Your task to perform on an android device: turn on location history Image 0: 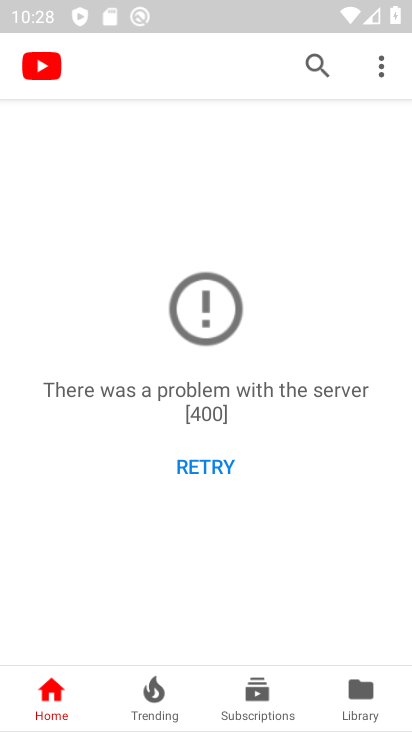
Step 0: press home button
Your task to perform on an android device: turn on location history Image 1: 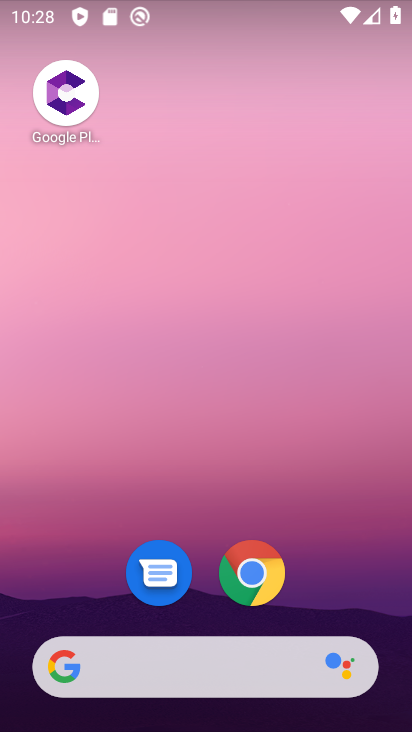
Step 1: drag from (59, 614) to (163, 210)
Your task to perform on an android device: turn on location history Image 2: 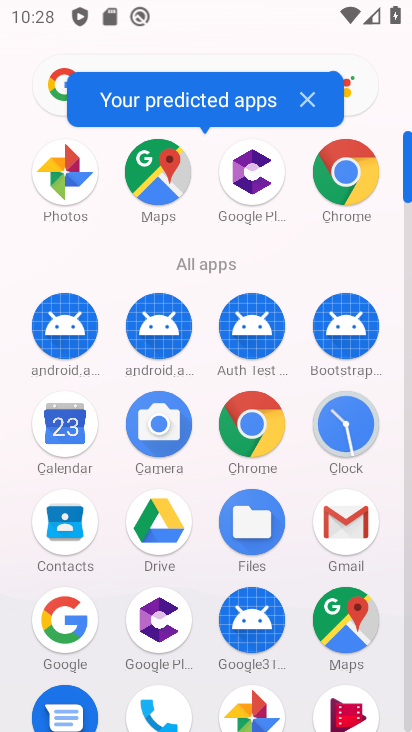
Step 2: drag from (160, 623) to (234, 363)
Your task to perform on an android device: turn on location history Image 3: 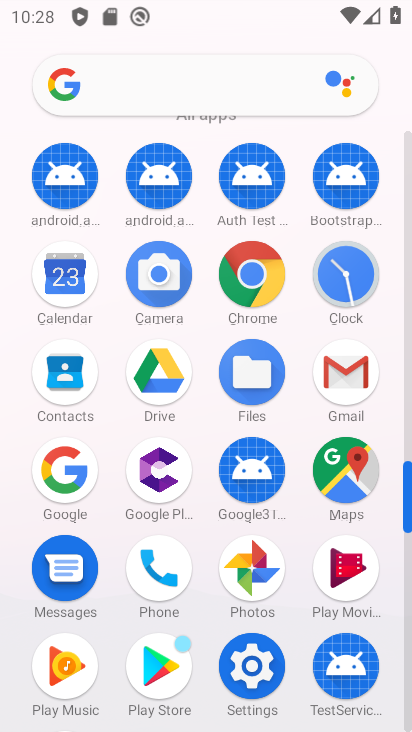
Step 3: click (251, 666)
Your task to perform on an android device: turn on location history Image 4: 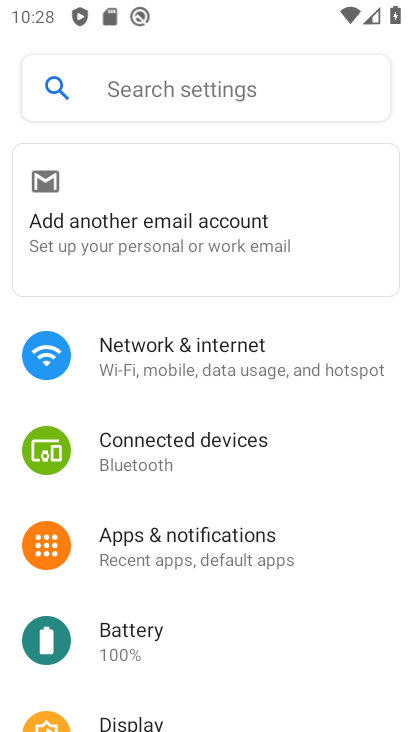
Step 4: drag from (155, 667) to (242, 348)
Your task to perform on an android device: turn on location history Image 5: 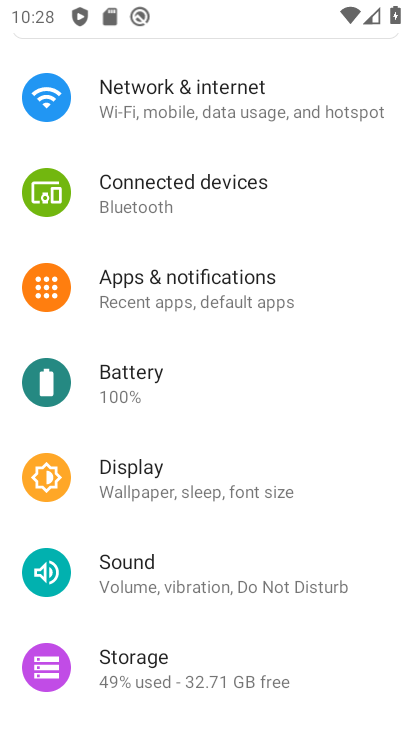
Step 5: drag from (198, 671) to (302, 391)
Your task to perform on an android device: turn on location history Image 6: 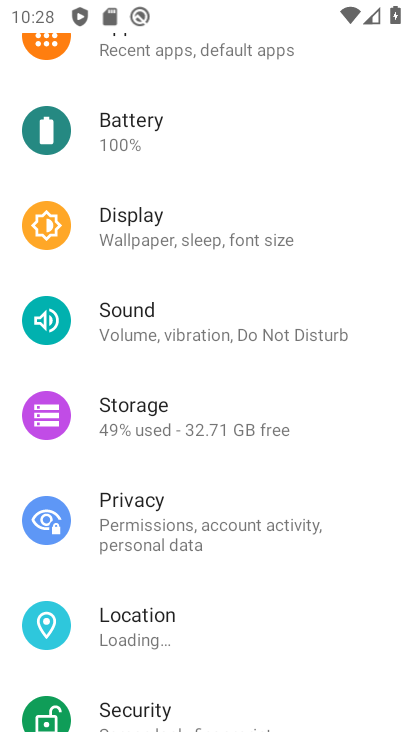
Step 6: click (183, 636)
Your task to perform on an android device: turn on location history Image 7: 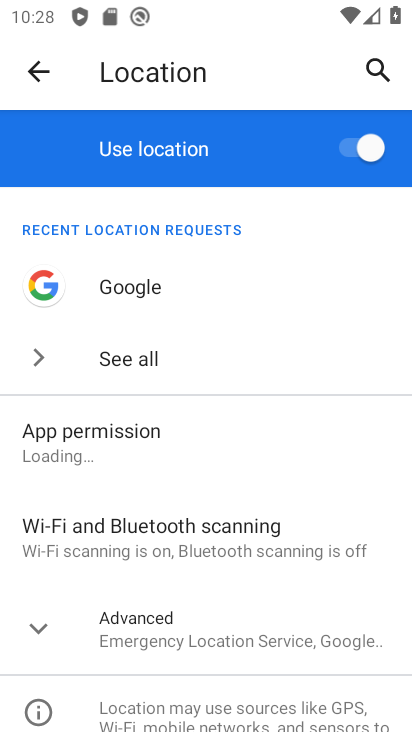
Step 7: click (187, 643)
Your task to perform on an android device: turn on location history Image 8: 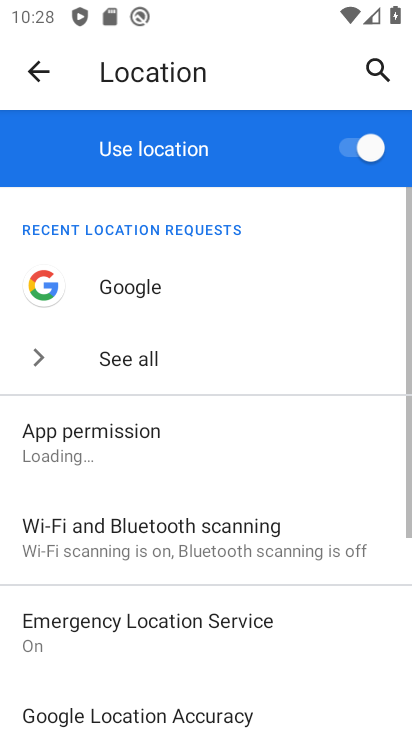
Step 8: drag from (180, 678) to (305, 336)
Your task to perform on an android device: turn on location history Image 9: 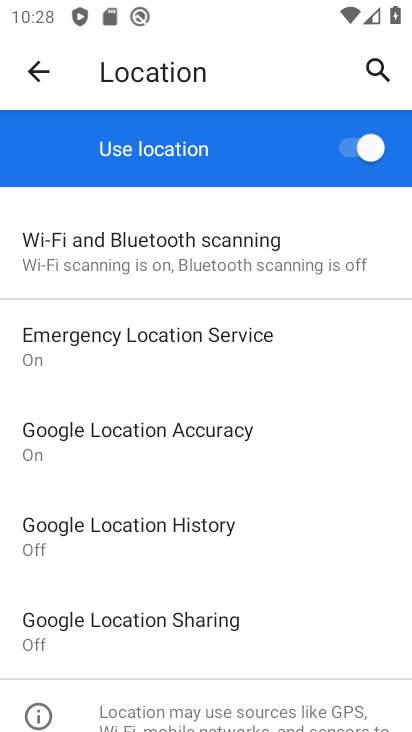
Step 9: click (223, 542)
Your task to perform on an android device: turn on location history Image 10: 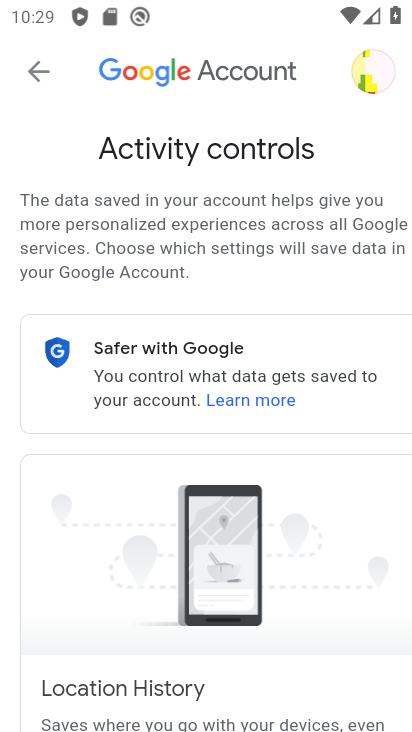
Step 10: drag from (203, 670) to (339, 188)
Your task to perform on an android device: turn on location history Image 11: 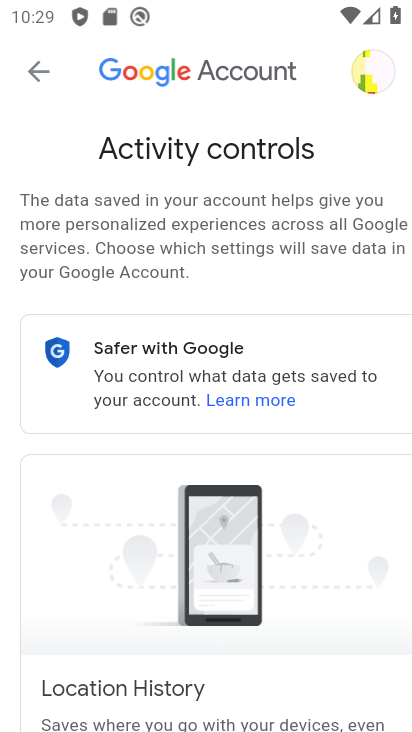
Step 11: drag from (262, 643) to (365, 197)
Your task to perform on an android device: turn on location history Image 12: 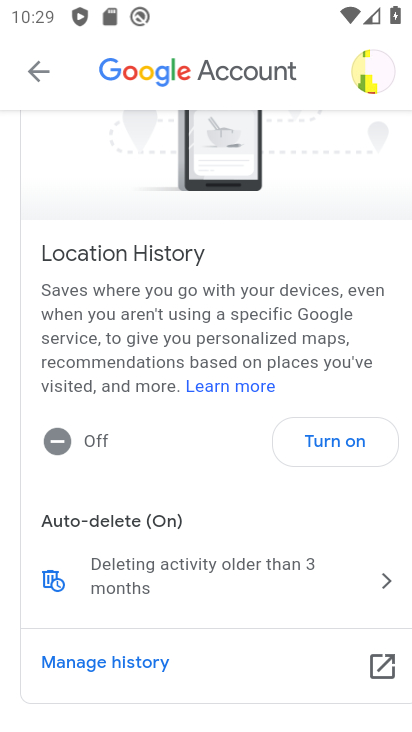
Step 12: click (356, 457)
Your task to perform on an android device: turn on location history Image 13: 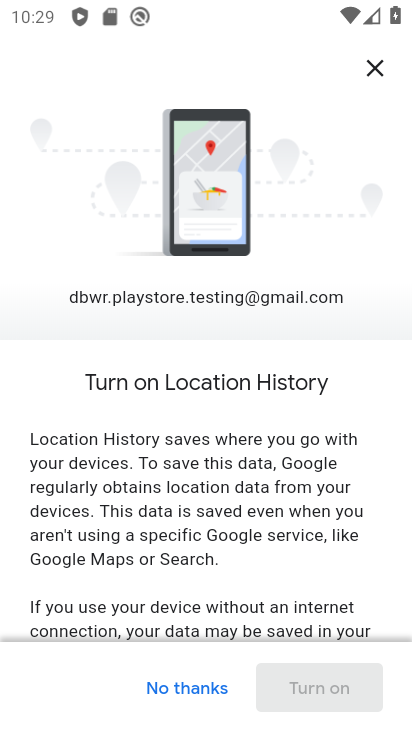
Step 13: drag from (164, 568) to (309, 135)
Your task to perform on an android device: turn on location history Image 14: 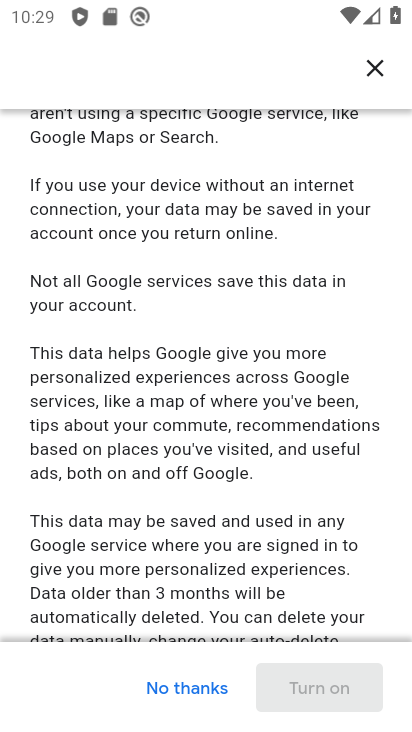
Step 14: drag from (207, 545) to (294, 157)
Your task to perform on an android device: turn on location history Image 15: 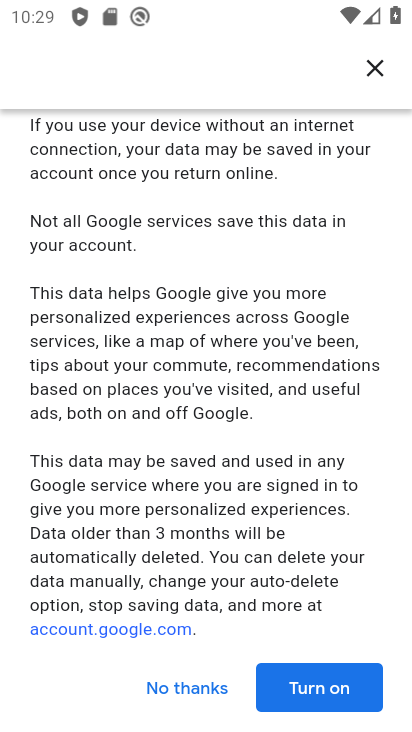
Step 15: click (340, 692)
Your task to perform on an android device: turn on location history Image 16: 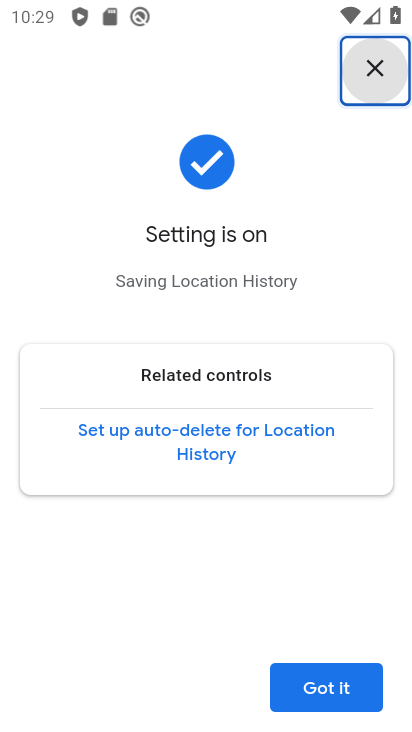
Step 16: click (340, 692)
Your task to perform on an android device: turn on location history Image 17: 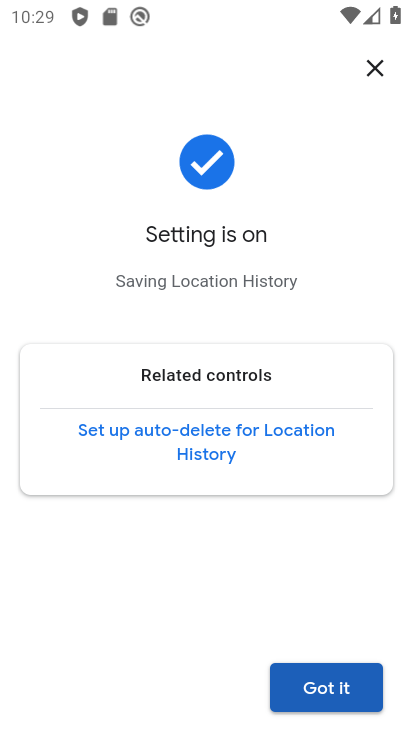
Step 17: click (340, 692)
Your task to perform on an android device: turn on location history Image 18: 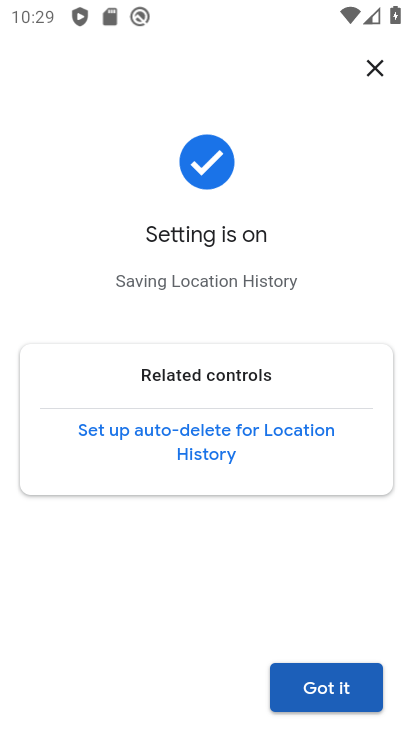
Step 18: click (336, 690)
Your task to perform on an android device: turn on location history Image 19: 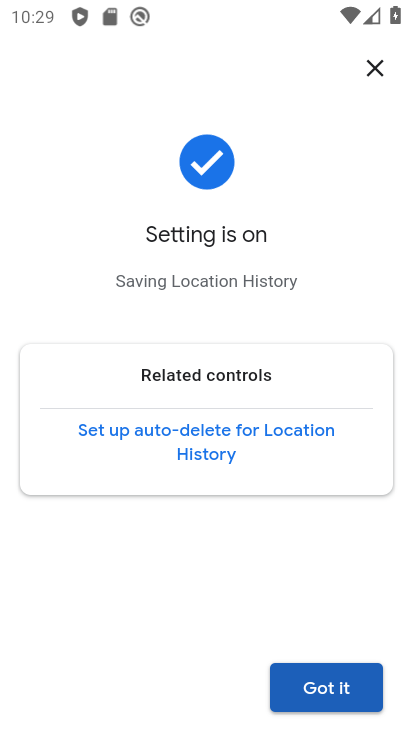
Step 19: click (331, 698)
Your task to perform on an android device: turn on location history Image 20: 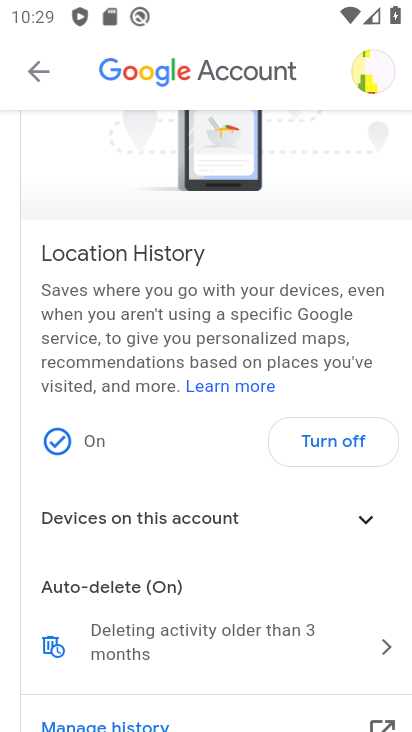
Step 20: task complete